Your task to perform on an android device: Open accessibility settings Image 0: 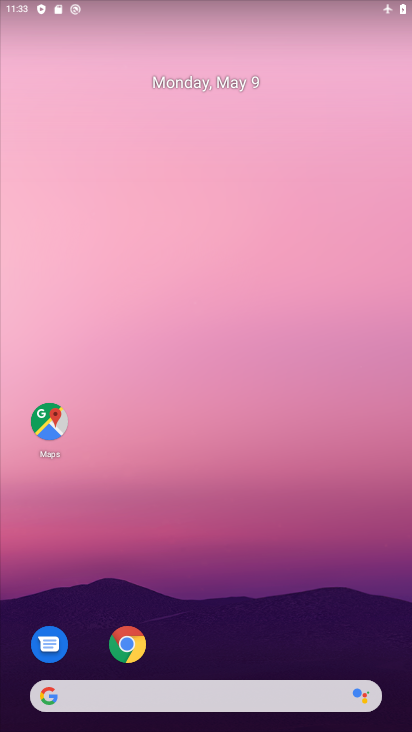
Step 0: drag from (214, 616) to (213, 84)
Your task to perform on an android device: Open accessibility settings Image 1: 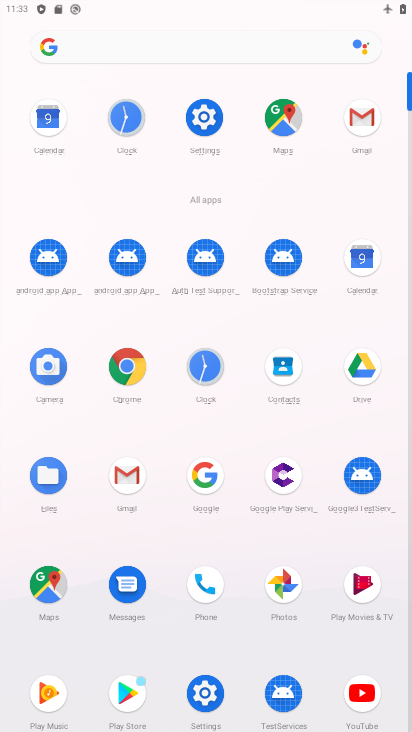
Step 1: click (215, 117)
Your task to perform on an android device: Open accessibility settings Image 2: 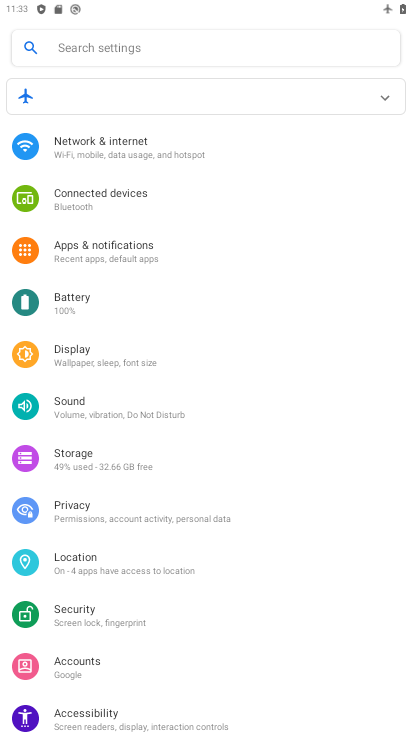
Step 2: click (137, 705)
Your task to perform on an android device: Open accessibility settings Image 3: 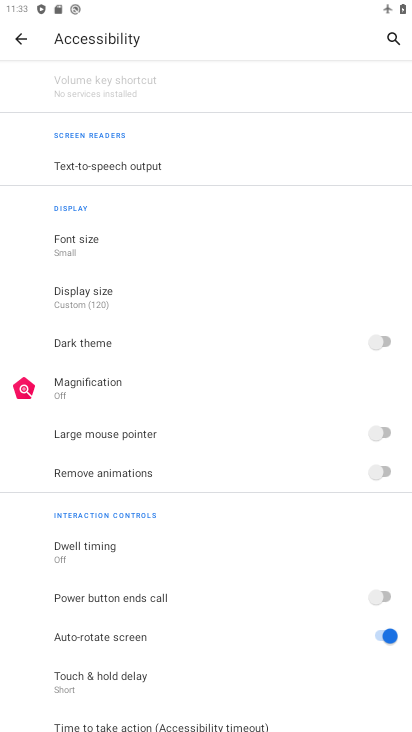
Step 3: task complete